Your task to perform on an android device: find photos in the google photos app Image 0: 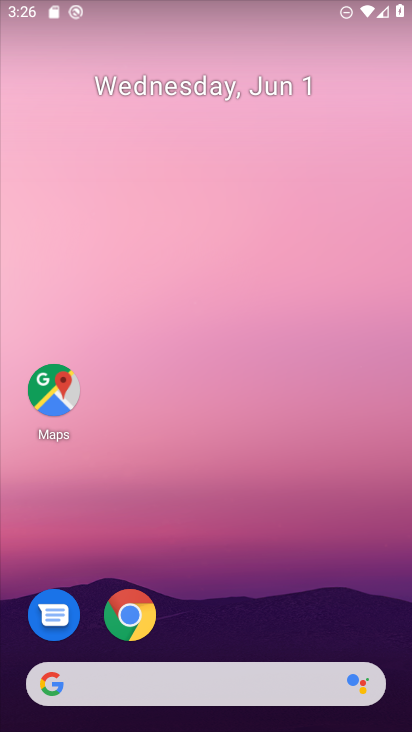
Step 0: press home button
Your task to perform on an android device: find photos in the google photos app Image 1: 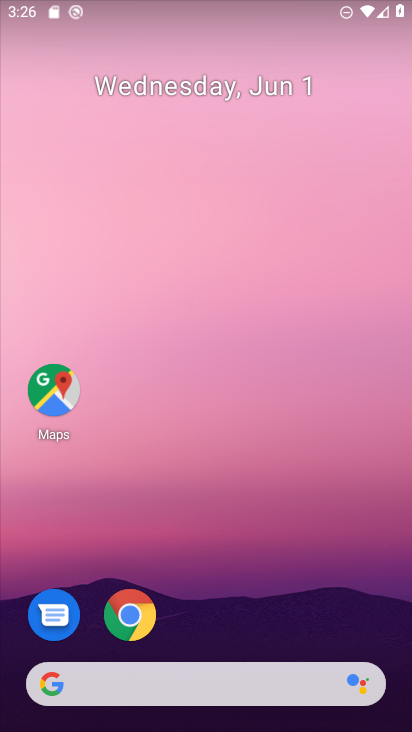
Step 1: drag from (199, 634) to (202, 218)
Your task to perform on an android device: find photos in the google photos app Image 2: 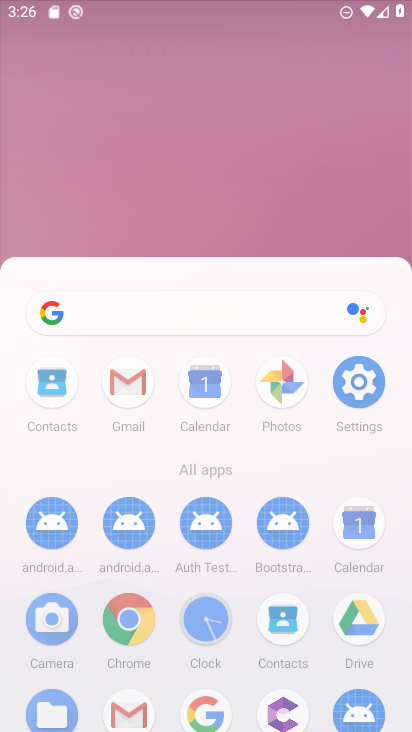
Step 2: click (205, 94)
Your task to perform on an android device: find photos in the google photos app Image 3: 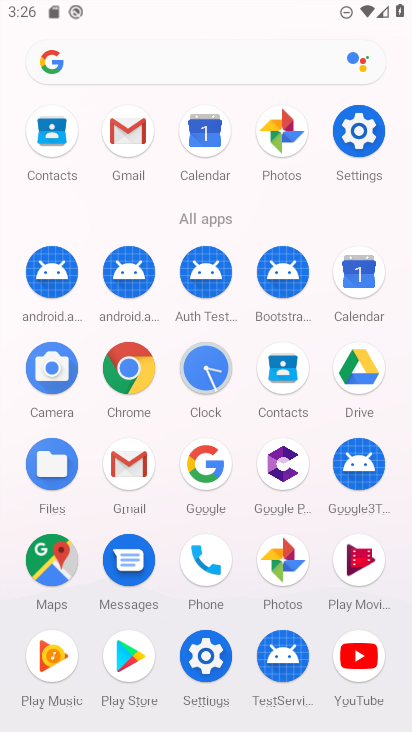
Step 3: click (281, 550)
Your task to perform on an android device: find photos in the google photos app Image 4: 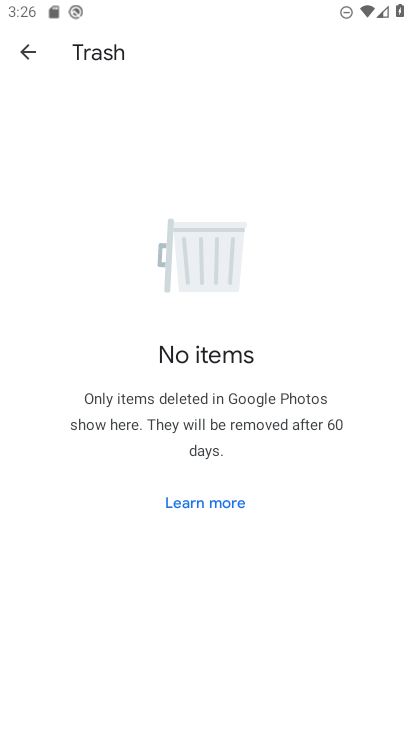
Step 4: click (23, 47)
Your task to perform on an android device: find photos in the google photos app Image 5: 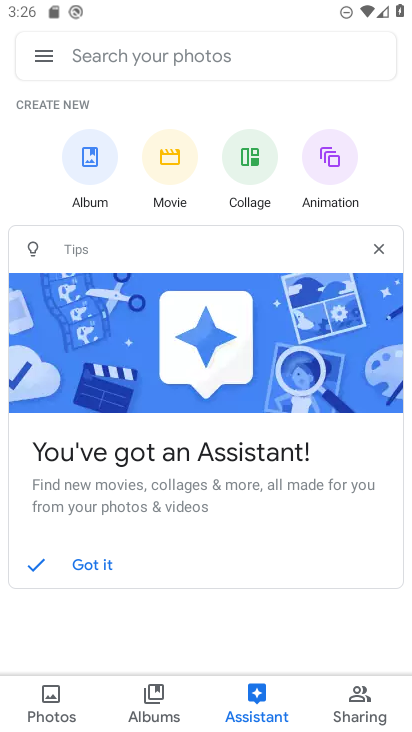
Step 5: click (46, 690)
Your task to perform on an android device: find photos in the google photos app Image 6: 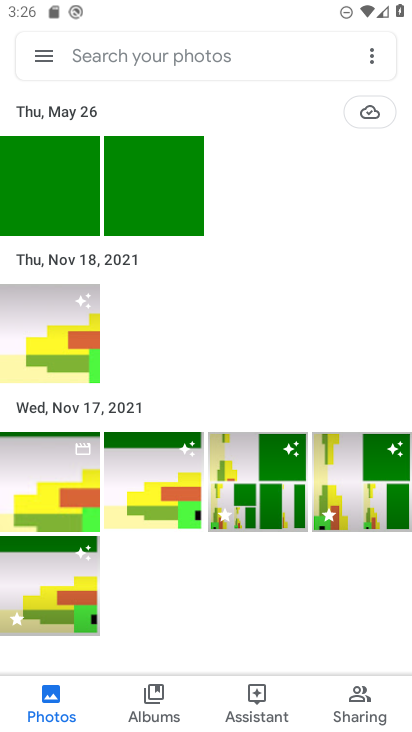
Step 6: task complete